Your task to perform on an android device: set default search engine in the chrome app Image 0: 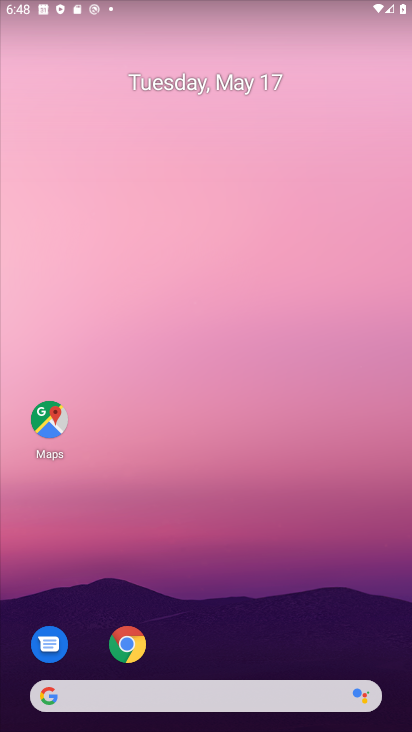
Step 0: drag from (378, 665) to (362, 185)
Your task to perform on an android device: set default search engine in the chrome app Image 1: 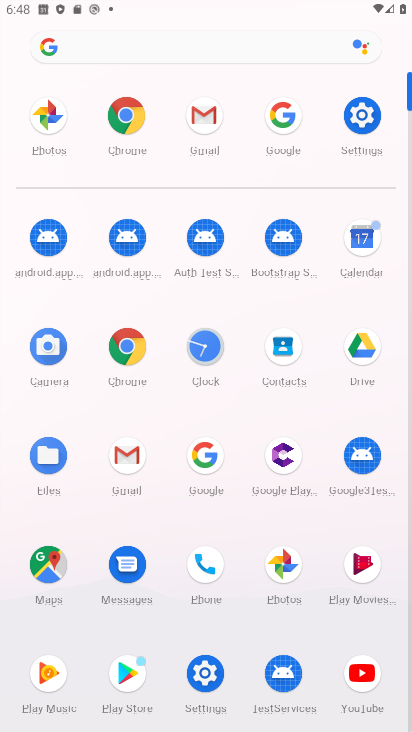
Step 1: click (120, 356)
Your task to perform on an android device: set default search engine in the chrome app Image 2: 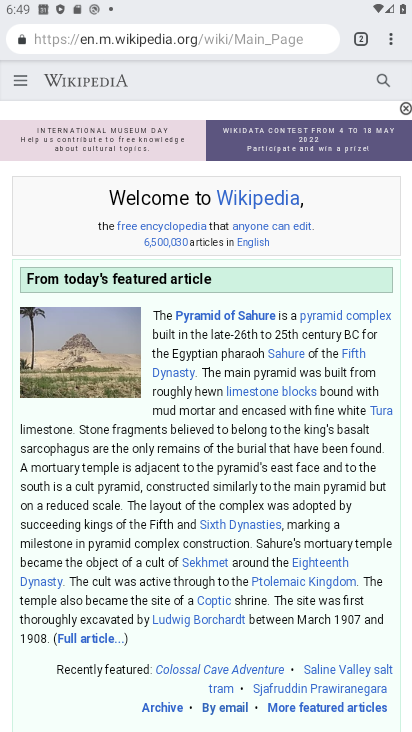
Step 2: press back button
Your task to perform on an android device: set default search engine in the chrome app Image 3: 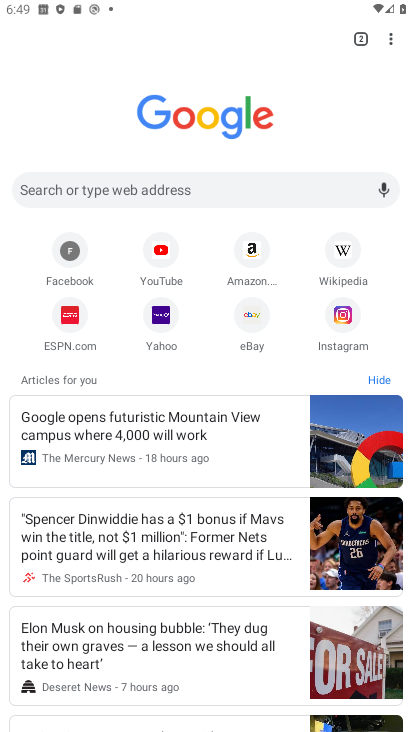
Step 3: click (389, 42)
Your task to perform on an android device: set default search engine in the chrome app Image 4: 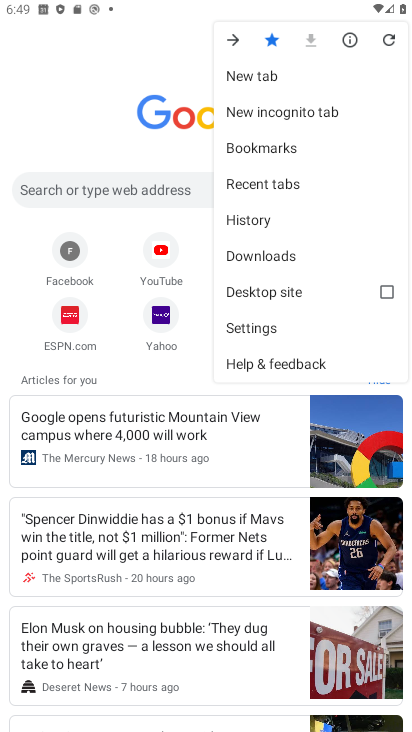
Step 4: click (281, 335)
Your task to perform on an android device: set default search engine in the chrome app Image 5: 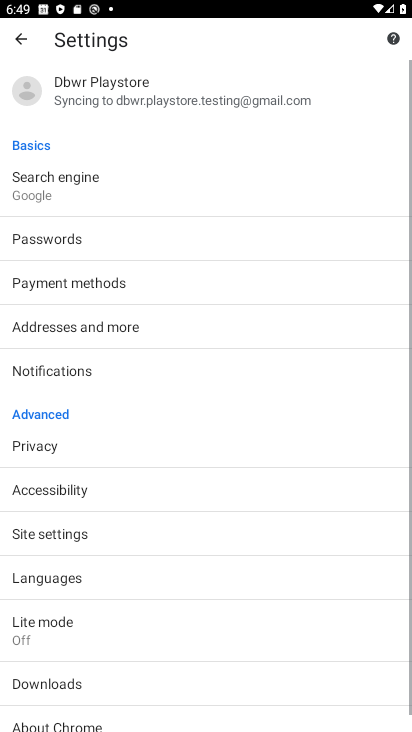
Step 5: click (161, 181)
Your task to perform on an android device: set default search engine in the chrome app Image 6: 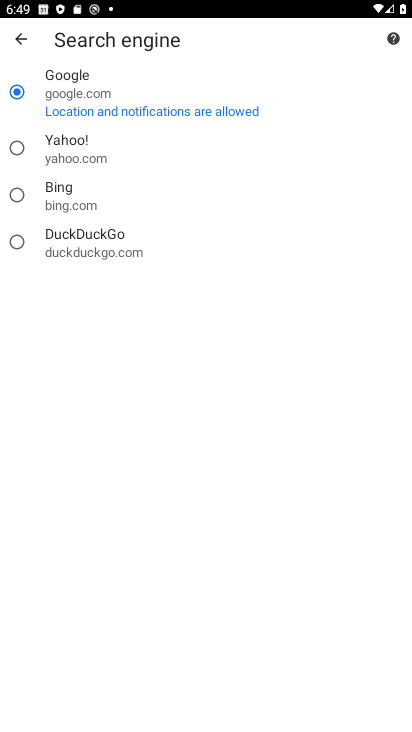
Step 6: click (102, 203)
Your task to perform on an android device: set default search engine in the chrome app Image 7: 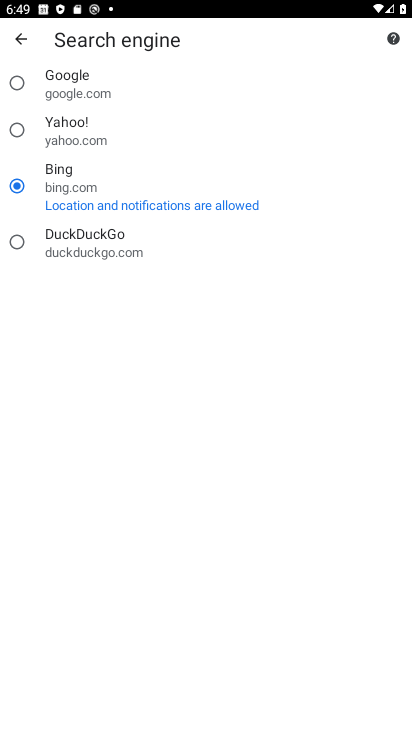
Step 7: task complete